Your task to perform on an android device: Open accessibility settings Image 0: 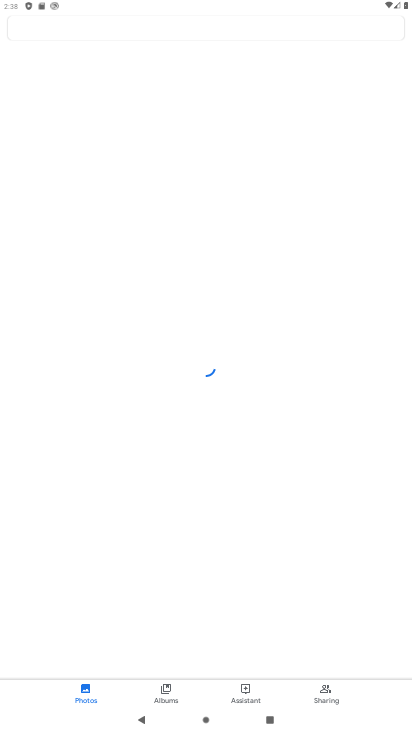
Step 0: press home button
Your task to perform on an android device: Open accessibility settings Image 1: 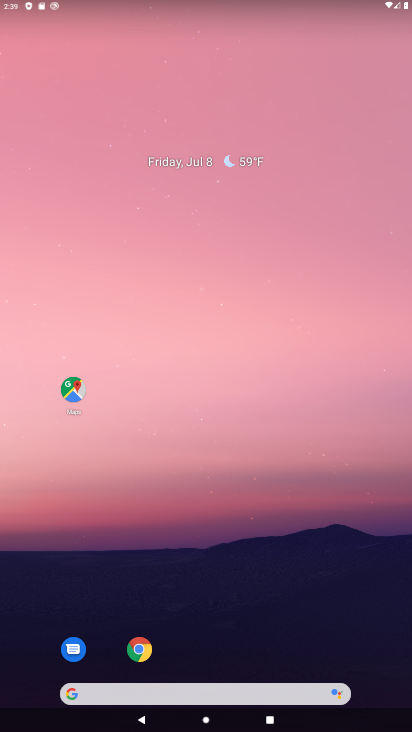
Step 1: drag from (263, 581) to (188, 69)
Your task to perform on an android device: Open accessibility settings Image 2: 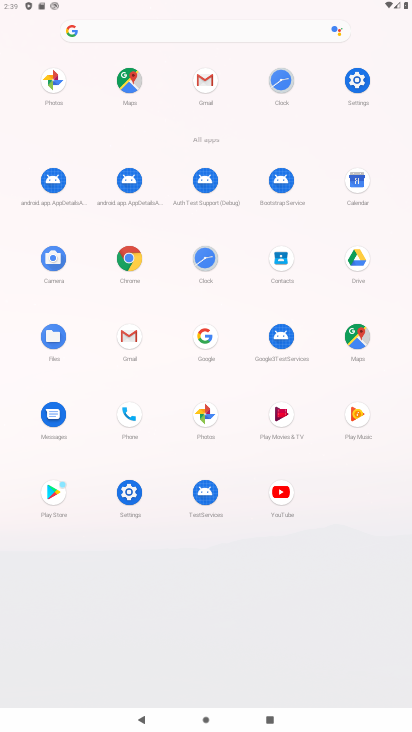
Step 2: click (361, 82)
Your task to perform on an android device: Open accessibility settings Image 3: 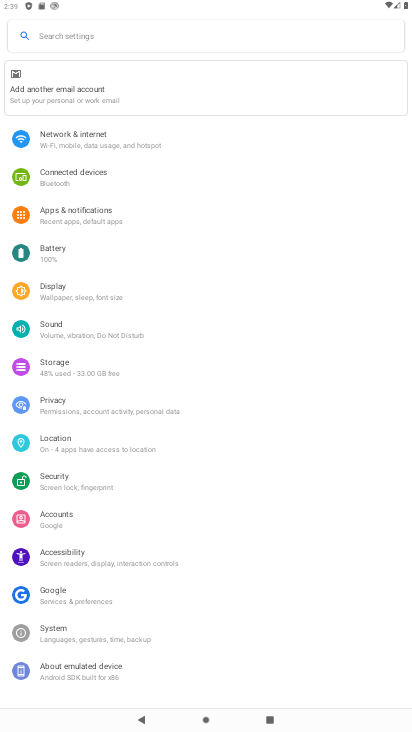
Step 3: click (108, 560)
Your task to perform on an android device: Open accessibility settings Image 4: 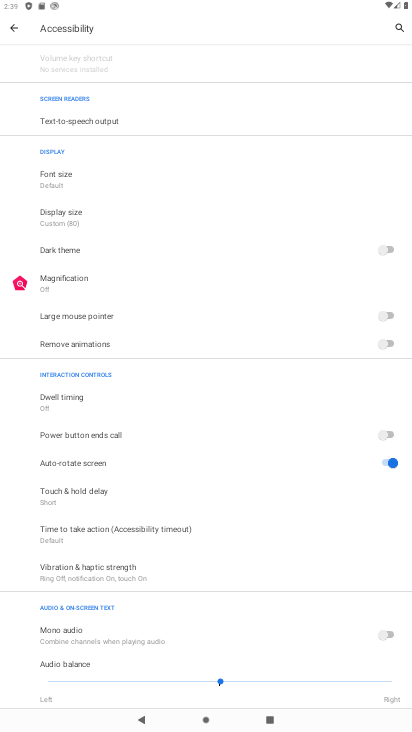
Step 4: task complete